Your task to perform on an android device: toggle data saver in the chrome app Image 0: 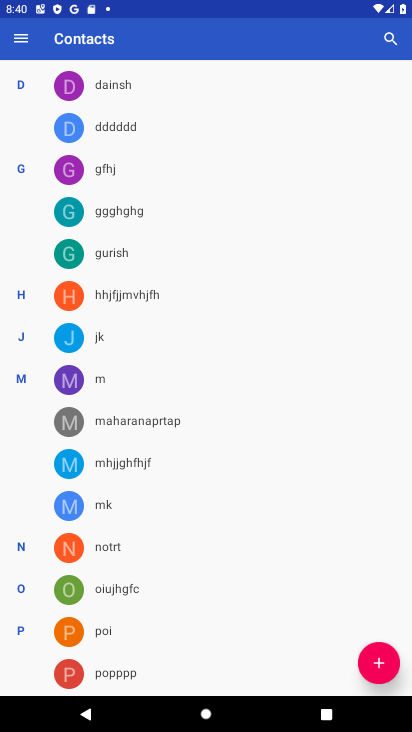
Step 0: press home button
Your task to perform on an android device: toggle data saver in the chrome app Image 1: 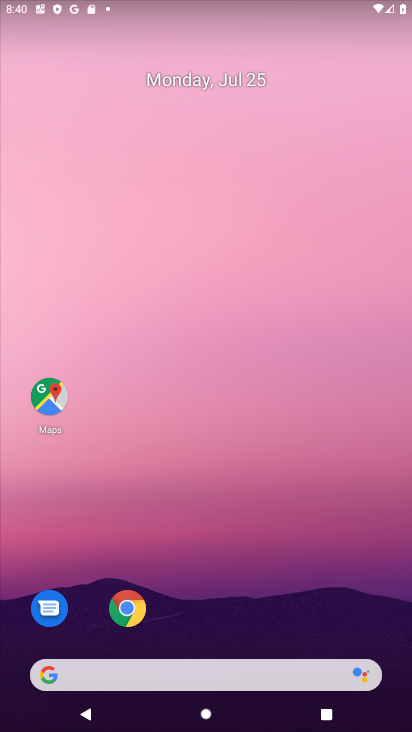
Step 1: click (129, 595)
Your task to perform on an android device: toggle data saver in the chrome app Image 2: 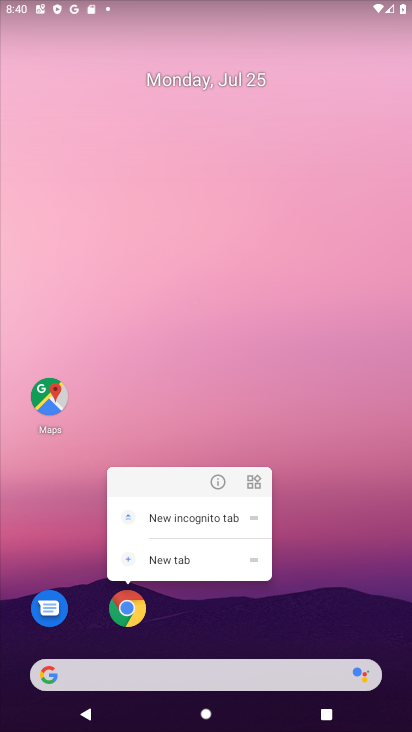
Step 2: click (118, 610)
Your task to perform on an android device: toggle data saver in the chrome app Image 3: 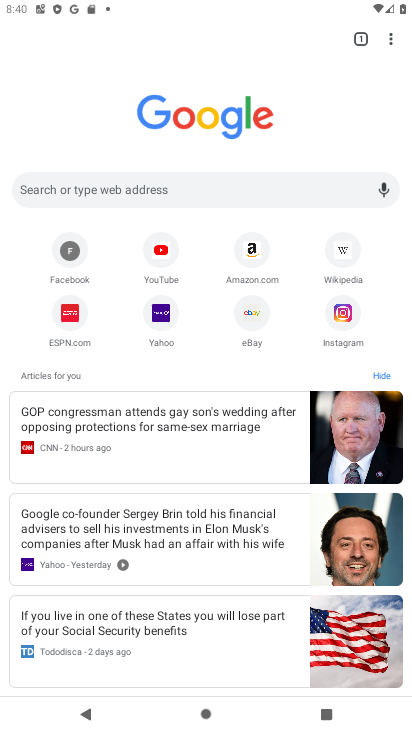
Step 3: click (400, 23)
Your task to perform on an android device: toggle data saver in the chrome app Image 4: 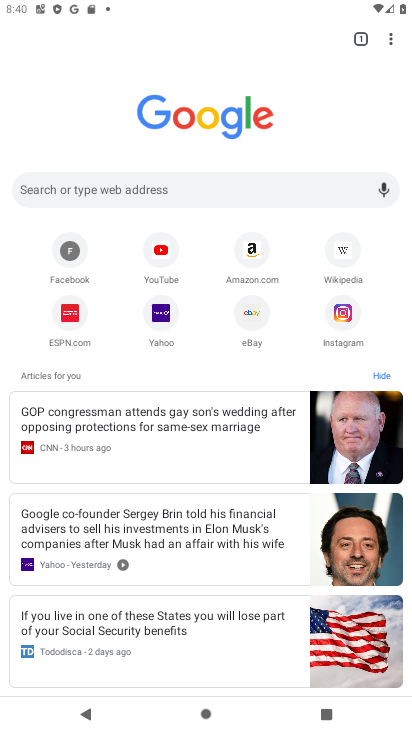
Step 4: click (395, 46)
Your task to perform on an android device: toggle data saver in the chrome app Image 5: 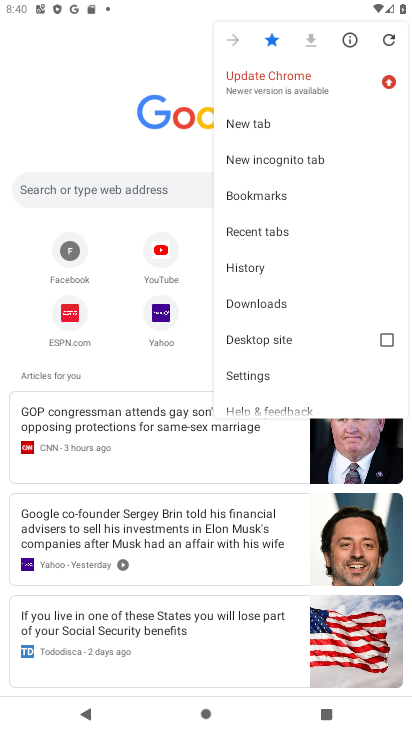
Step 5: click (265, 376)
Your task to perform on an android device: toggle data saver in the chrome app Image 6: 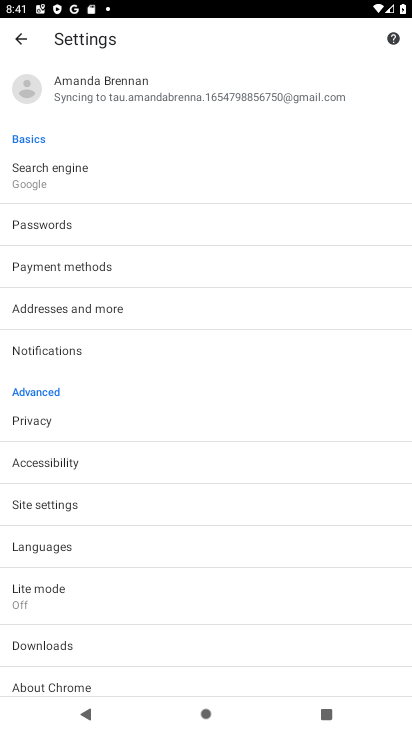
Step 6: click (94, 594)
Your task to perform on an android device: toggle data saver in the chrome app Image 7: 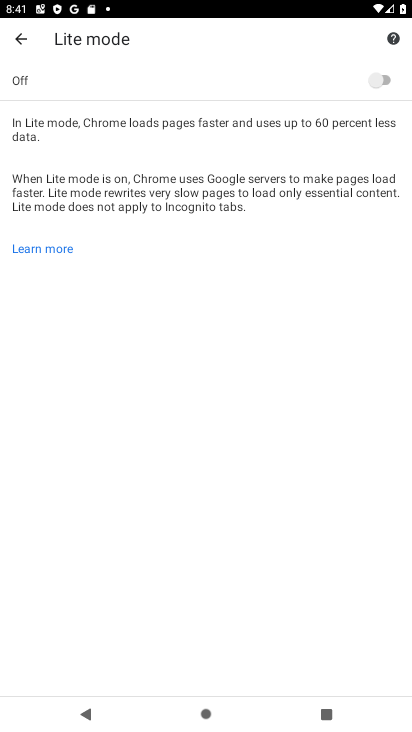
Step 7: click (389, 73)
Your task to perform on an android device: toggle data saver in the chrome app Image 8: 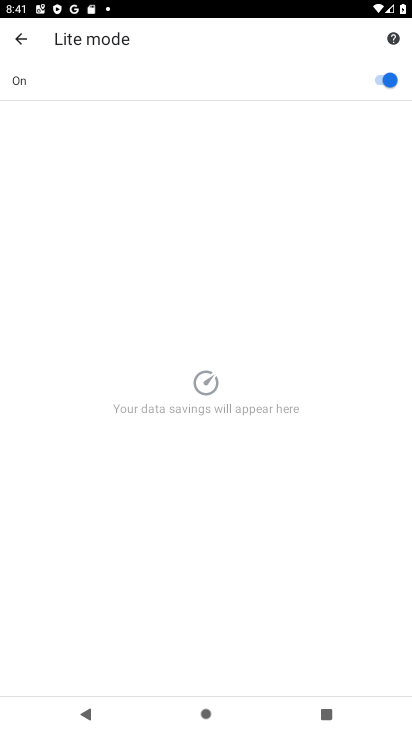
Step 8: task complete